Your task to perform on an android device: check storage Image 0: 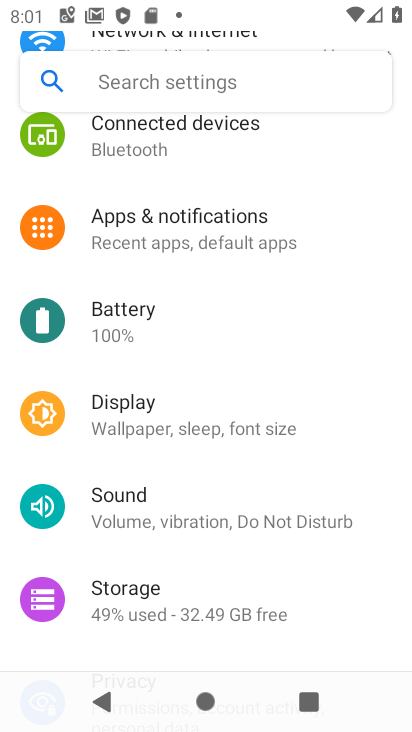
Step 0: click (187, 604)
Your task to perform on an android device: check storage Image 1: 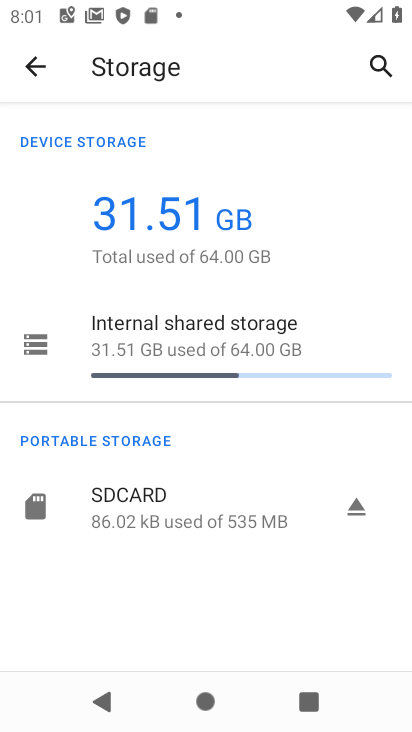
Step 1: task complete